Your task to perform on an android device: set default search engine in the chrome app Image 0: 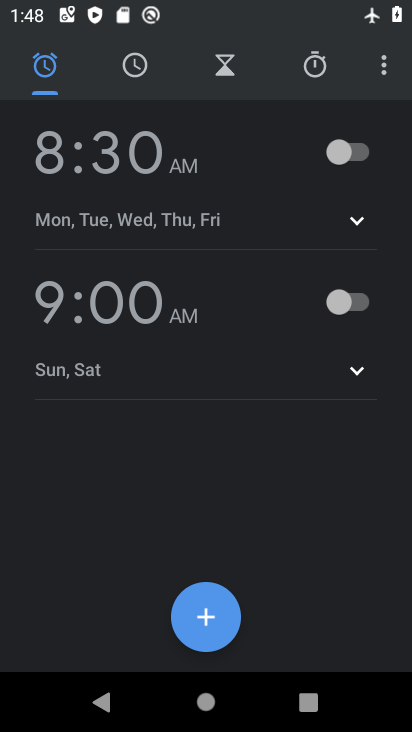
Step 0: press home button
Your task to perform on an android device: set default search engine in the chrome app Image 1: 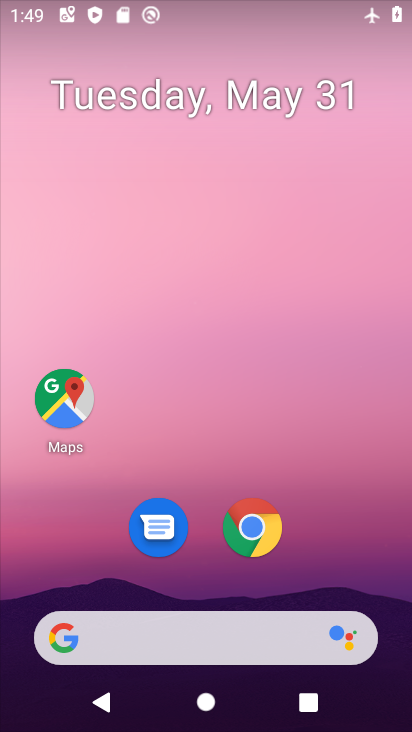
Step 1: drag from (379, 573) to (410, 123)
Your task to perform on an android device: set default search engine in the chrome app Image 2: 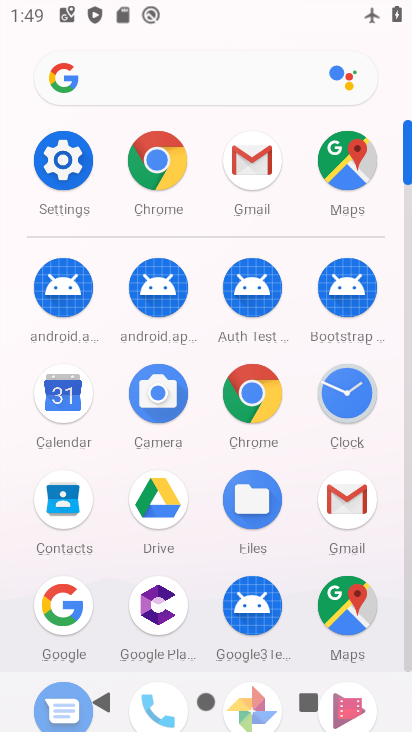
Step 2: click (159, 166)
Your task to perform on an android device: set default search engine in the chrome app Image 3: 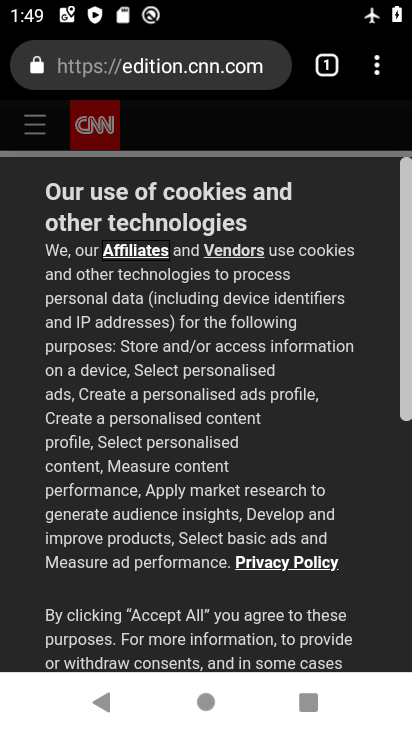
Step 3: drag from (386, 65) to (160, 576)
Your task to perform on an android device: set default search engine in the chrome app Image 4: 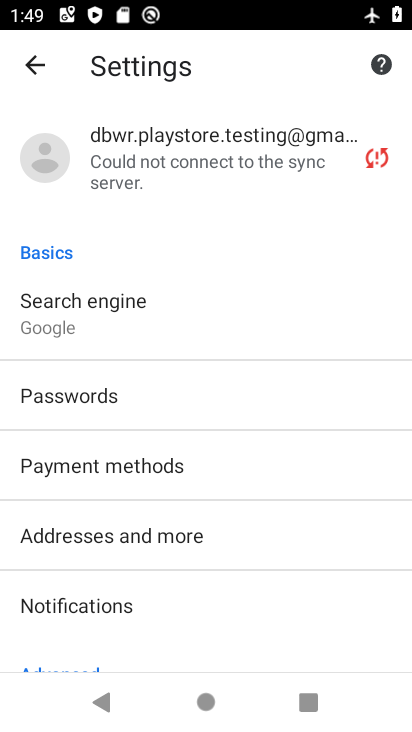
Step 4: click (92, 322)
Your task to perform on an android device: set default search engine in the chrome app Image 5: 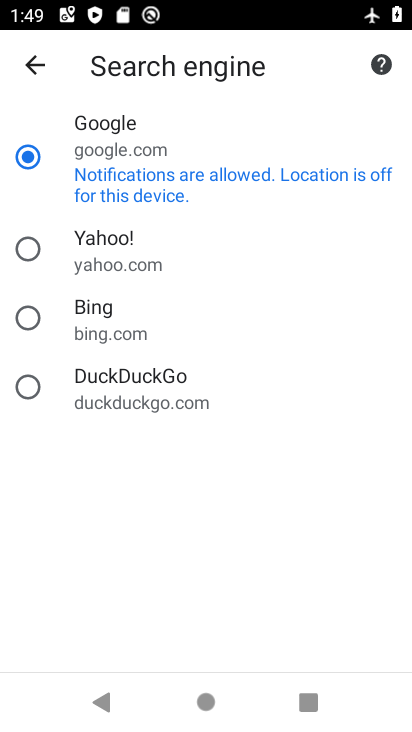
Step 5: task complete